Your task to perform on an android device: add a contact Image 0: 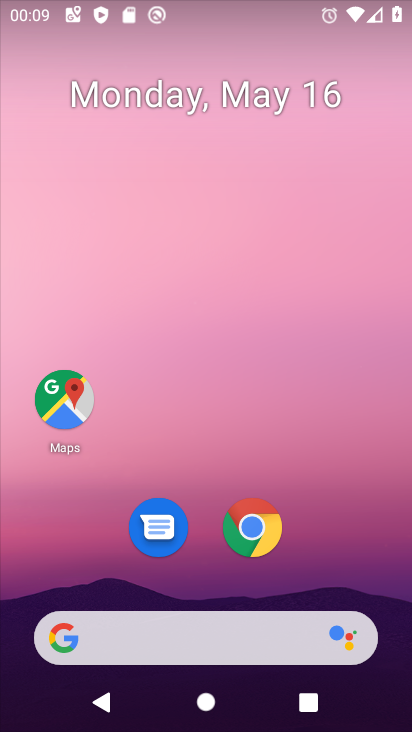
Step 0: drag from (368, 542) to (307, 146)
Your task to perform on an android device: add a contact Image 1: 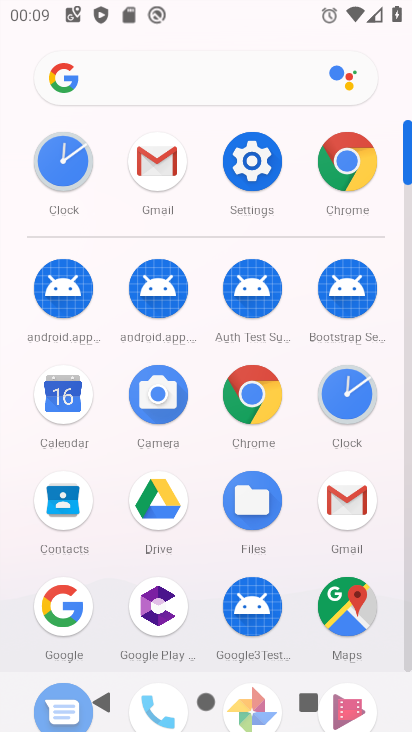
Step 1: click (411, 662)
Your task to perform on an android device: add a contact Image 2: 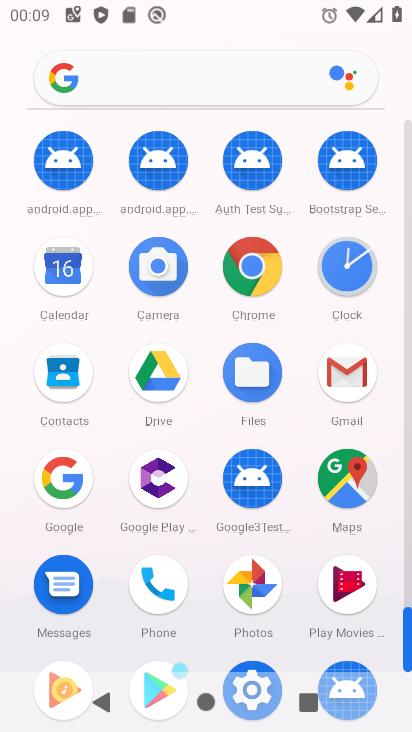
Step 2: click (75, 374)
Your task to perform on an android device: add a contact Image 3: 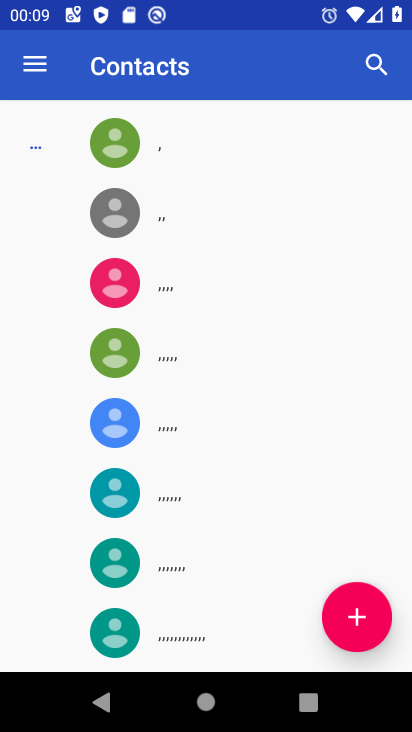
Step 3: click (345, 598)
Your task to perform on an android device: add a contact Image 4: 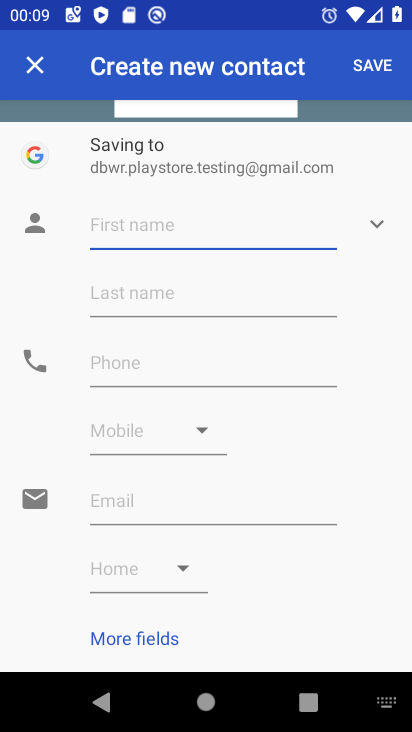
Step 4: click (162, 222)
Your task to perform on an android device: add a contact Image 5: 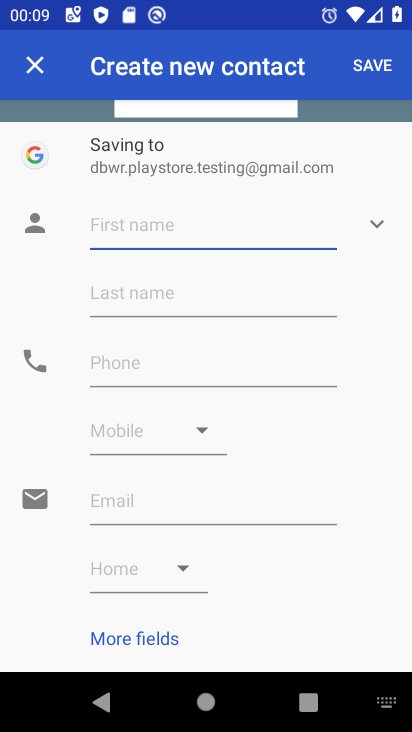
Step 5: type "sadas"
Your task to perform on an android device: add a contact Image 6: 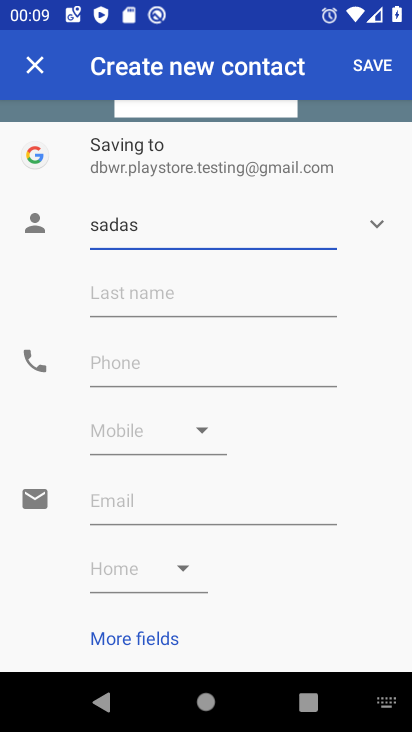
Step 6: click (274, 283)
Your task to perform on an android device: add a contact Image 7: 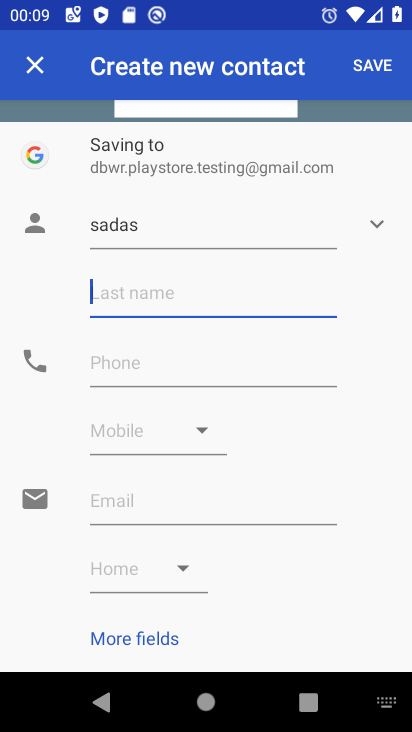
Step 7: type "azcasc"
Your task to perform on an android device: add a contact Image 8: 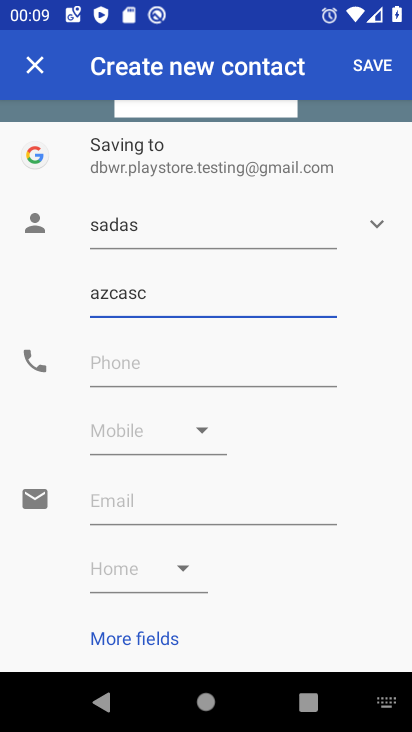
Step 8: click (272, 354)
Your task to perform on an android device: add a contact Image 9: 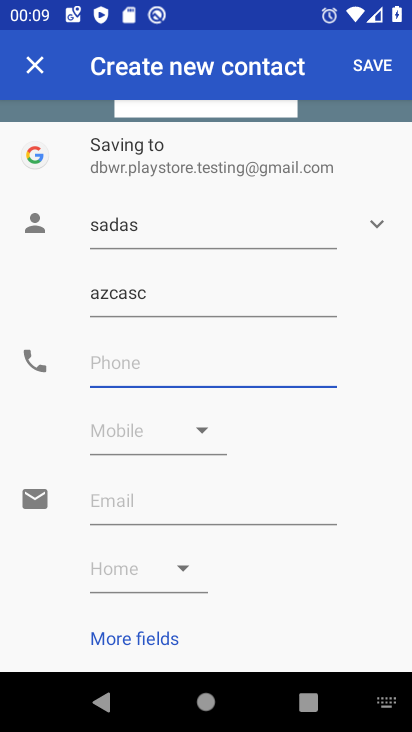
Step 9: type "342342342345"
Your task to perform on an android device: add a contact Image 10: 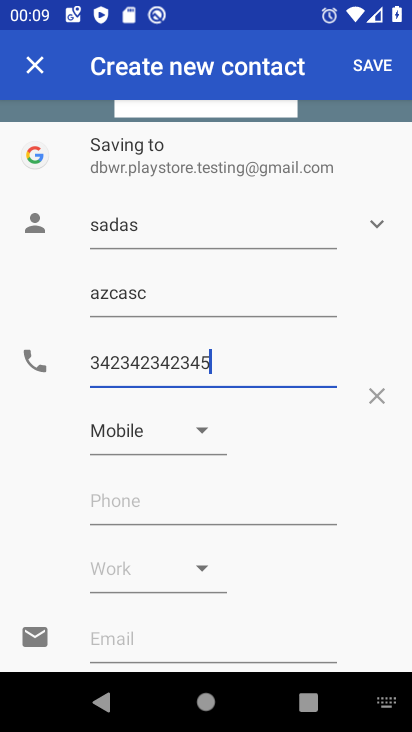
Step 10: click (364, 65)
Your task to perform on an android device: add a contact Image 11: 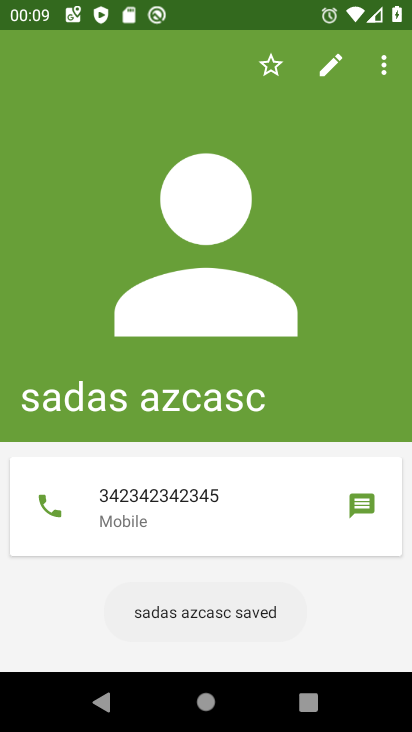
Step 11: task complete